Your task to perform on an android device: Set the phone to "Do not disturb". Image 0: 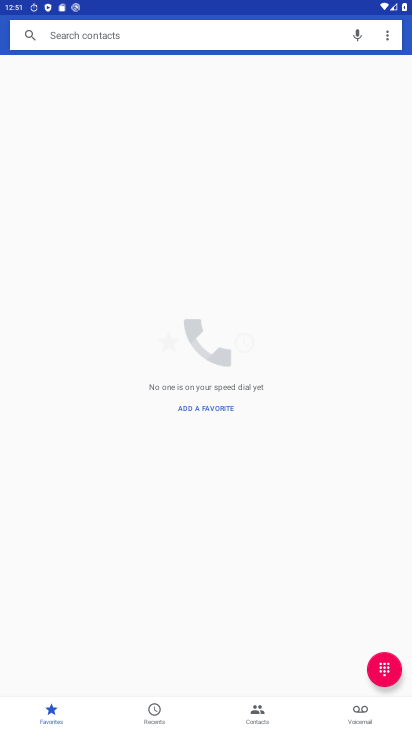
Step 0: press home button
Your task to perform on an android device: Set the phone to "Do not disturb". Image 1: 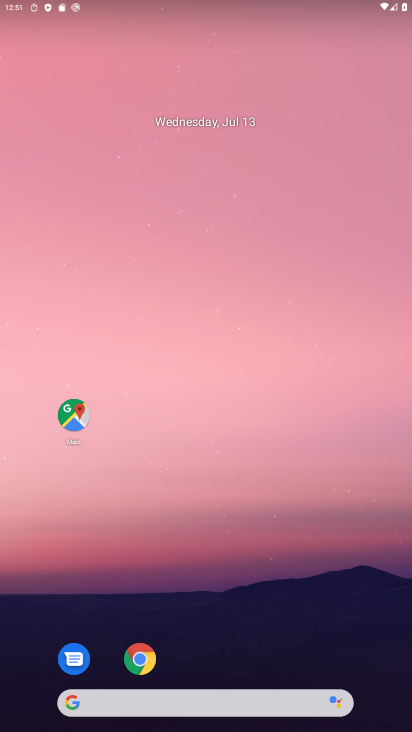
Step 1: drag from (267, 597) to (405, 0)
Your task to perform on an android device: Set the phone to "Do not disturb". Image 2: 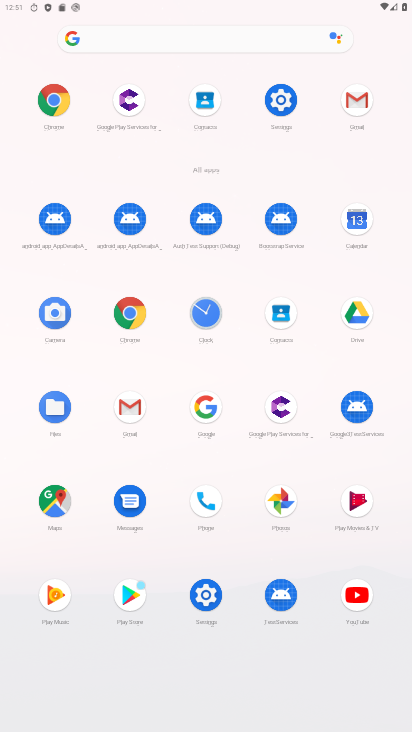
Step 2: click (285, 98)
Your task to perform on an android device: Set the phone to "Do not disturb". Image 3: 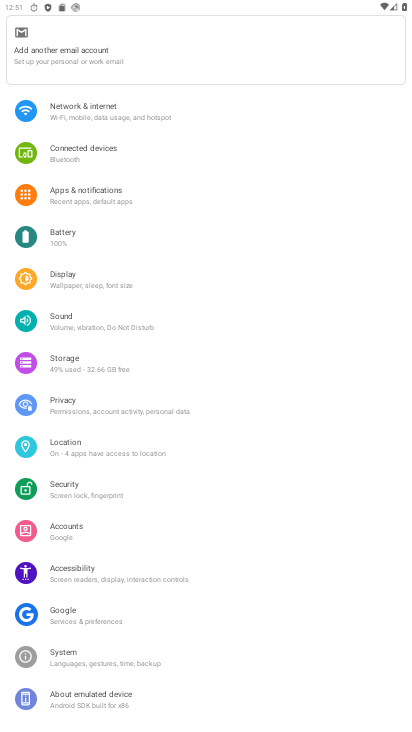
Step 3: click (86, 323)
Your task to perform on an android device: Set the phone to "Do not disturb". Image 4: 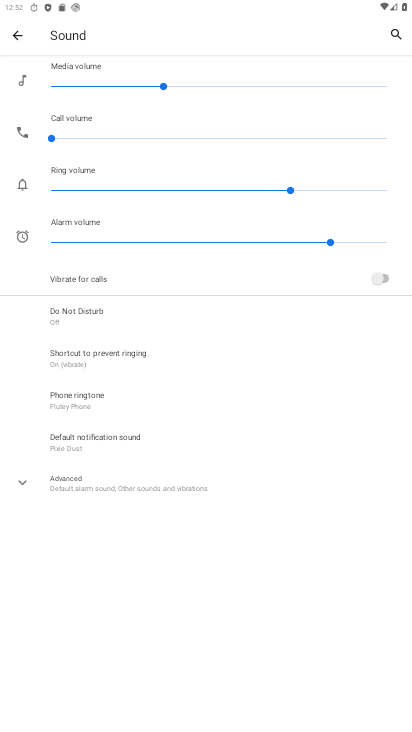
Step 4: click (93, 311)
Your task to perform on an android device: Set the phone to "Do not disturb". Image 5: 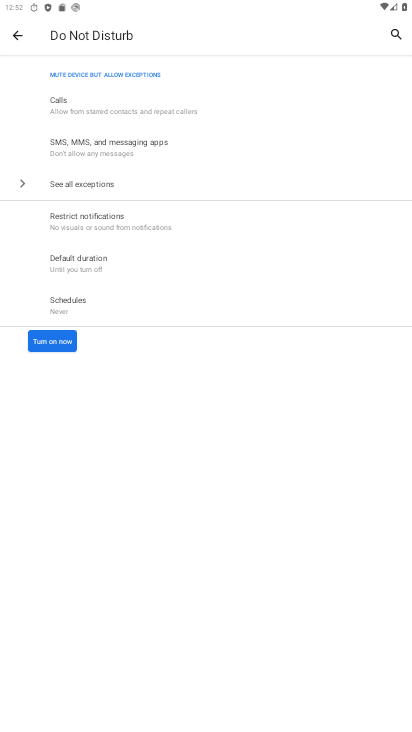
Step 5: click (64, 343)
Your task to perform on an android device: Set the phone to "Do not disturb". Image 6: 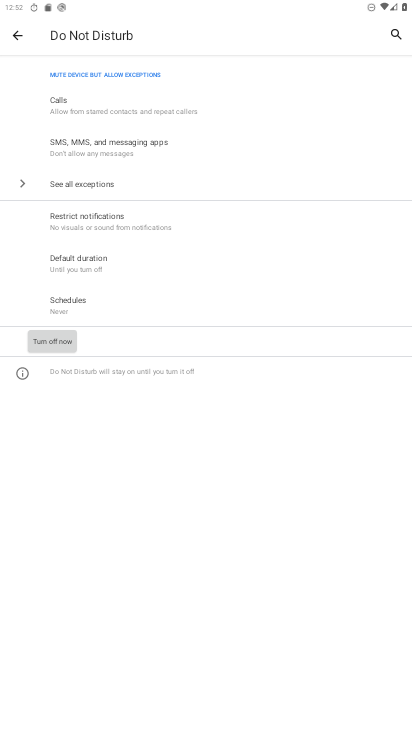
Step 6: task complete